Your task to perform on an android device: Search for "asus rog" on walmart, select the first entry, and add it to the cart. Image 0: 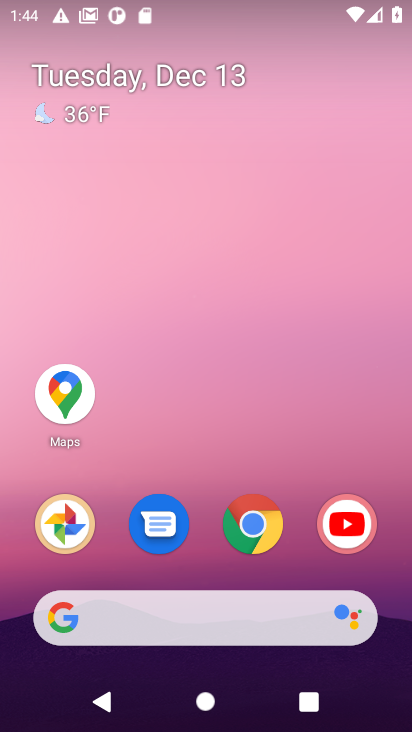
Step 0: click (246, 532)
Your task to perform on an android device: Search for "asus rog" on walmart, select the first entry, and add it to the cart. Image 1: 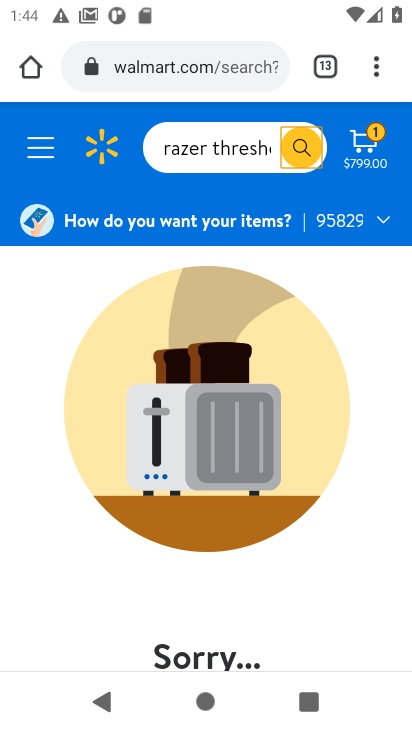
Step 1: click (185, 153)
Your task to perform on an android device: Search for "asus rog" on walmart, select the first entry, and add it to the cart. Image 2: 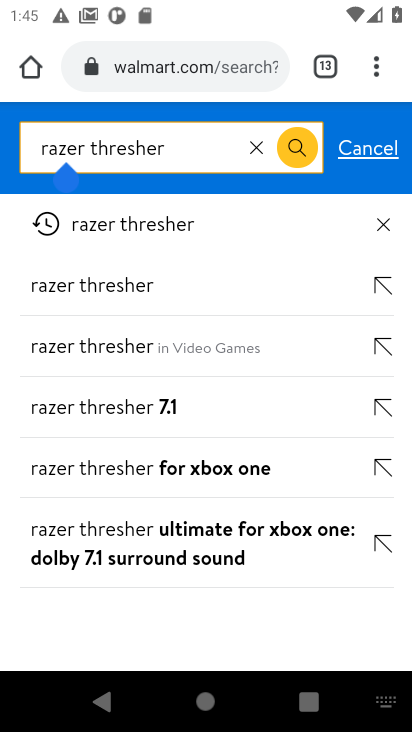
Step 2: click (255, 148)
Your task to perform on an android device: Search for "asus rog" on walmart, select the first entry, and add it to the cart. Image 3: 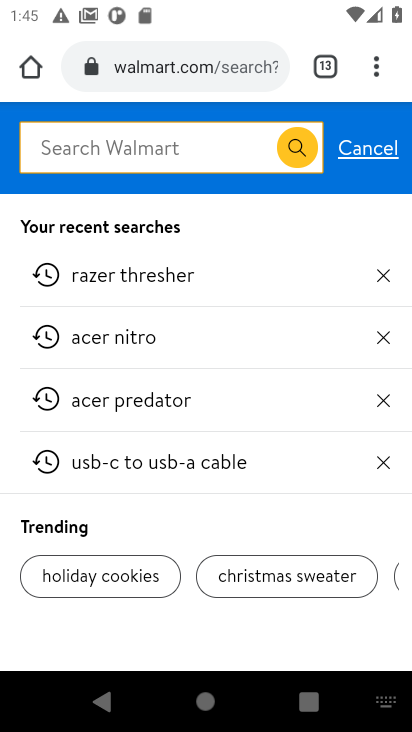
Step 3: type "asus rog"
Your task to perform on an android device: Search for "asus rog" on walmart, select the first entry, and add it to the cart. Image 4: 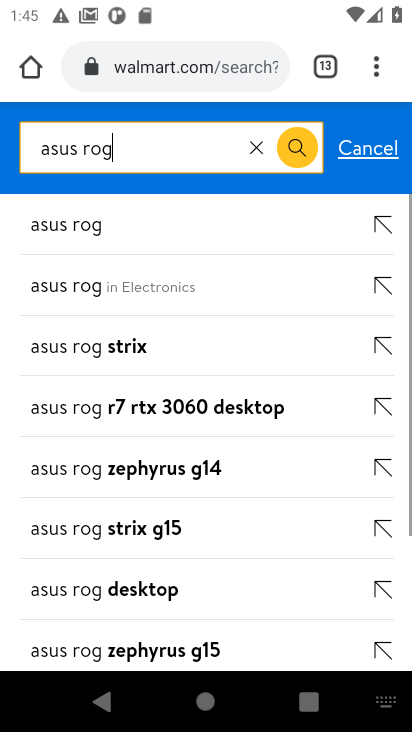
Step 4: click (79, 232)
Your task to perform on an android device: Search for "asus rog" on walmart, select the first entry, and add it to the cart. Image 5: 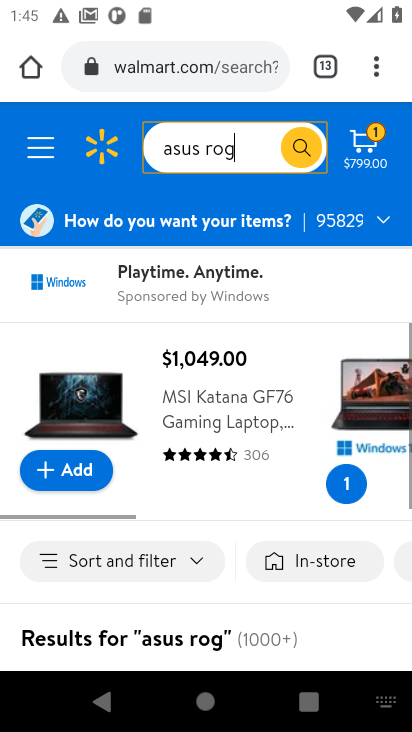
Step 5: drag from (191, 409) to (186, 205)
Your task to perform on an android device: Search for "asus rog" on walmart, select the first entry, and add it to the cart. Image 6: 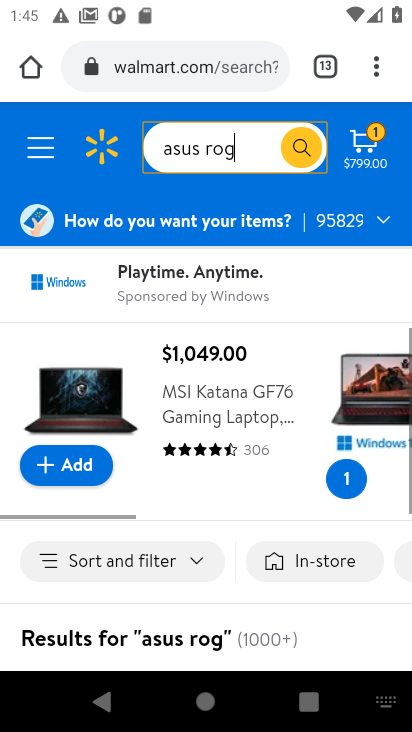
Step 6: drag from (193, 455) to (183, 215)
Your task to perform on an android device: Search for "asus rog" on walmart, select the first entry, and add it to the cart. Image 7: 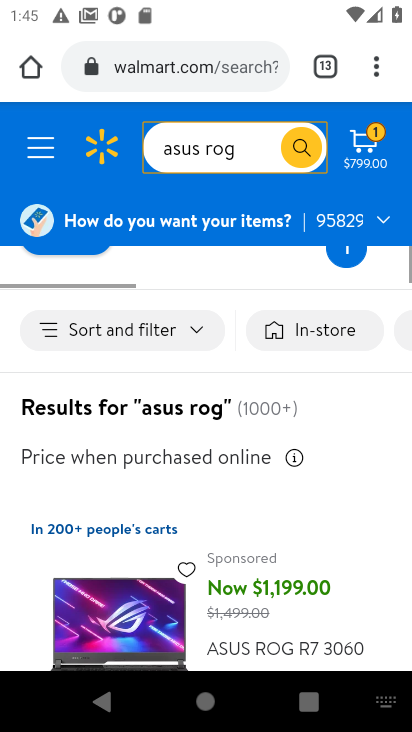
Step 7: drag from (162, 479) to (174, 232)
Your task to perform on an android device: Search for "asus rog" on walmart, select the first entry, and add it to the cart. Image 8: 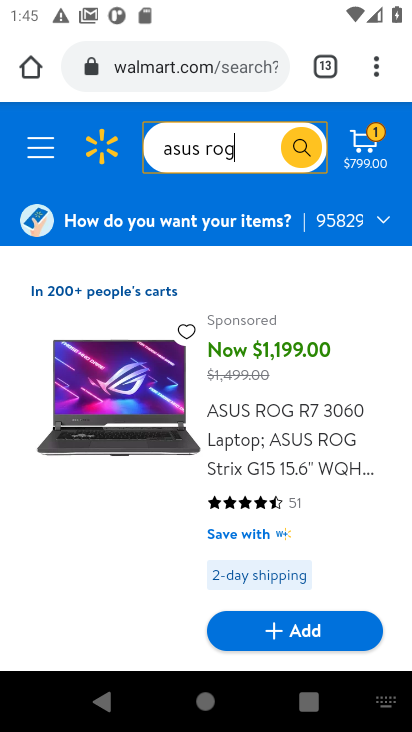
Step 8: click (273, 628)
Your task to perform on an android device: Search for "asus rog" on walmart, select the first entry, and add it to the cart. Image 9: 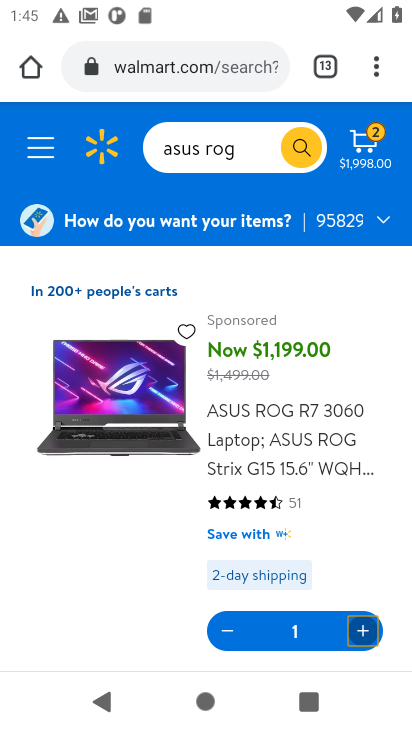
Step 9: task complete